Your task to perform on an android device: open device folders in google photos Image 0: 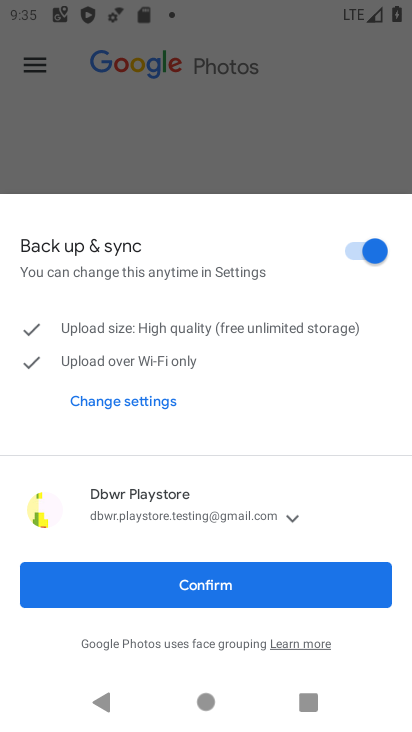
Step 0: click (225, 592)
Your task to perform on an android device: open device folders in google photos Image 1: 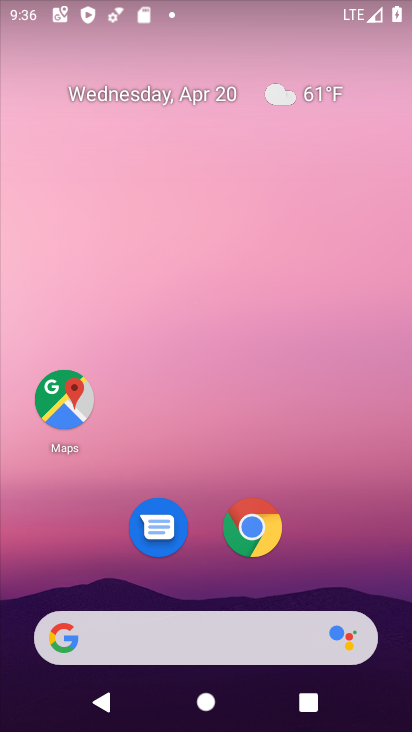
Step 1: drag from (215, 560) to (213, 20)
Your task to perform on an android device: open device folders in google photos Image 2: 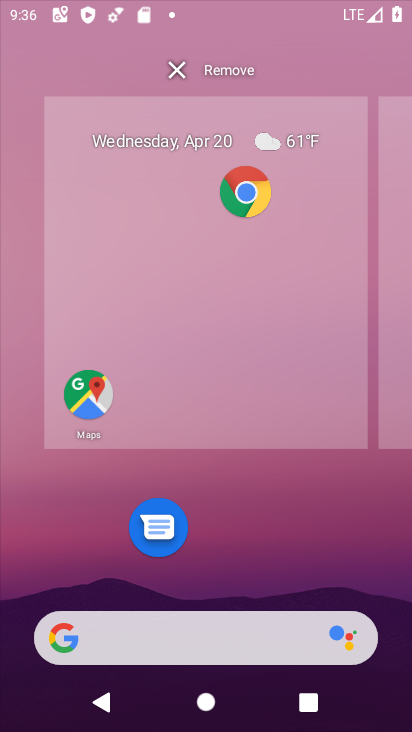
Step 2: click (375, 448)
Your task to perform on an android device: open device folders in google photos Image 3: 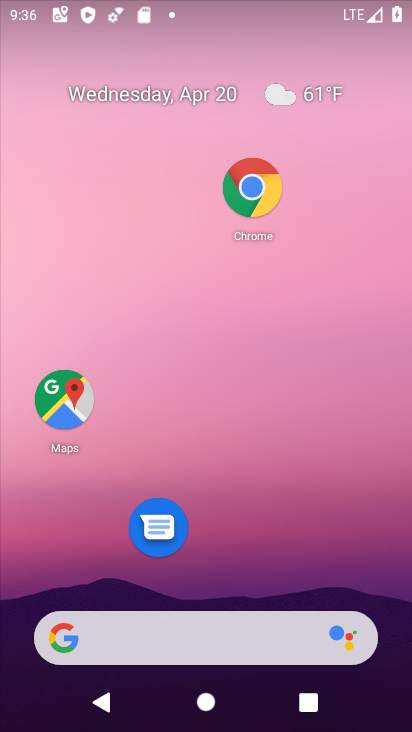
Step 3: drag from (278, 569) to (253, 206)
Your task to perform on an android device: open device folders in google photos Image 4: 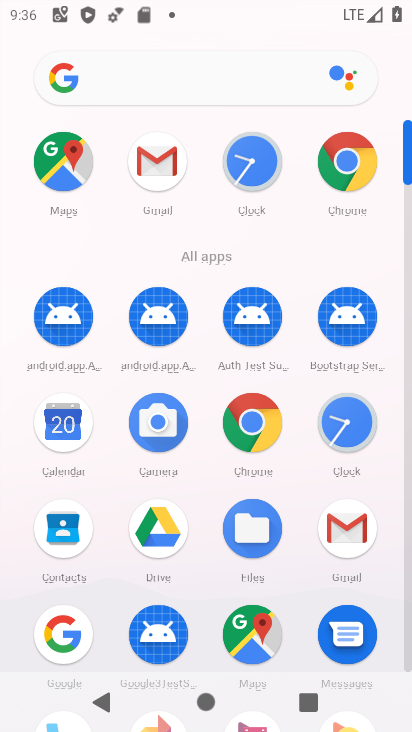
Step 4: drag from (202, 556) to (181, 191)
Your task to perform on an android device: open device folders in google photos Image 5: 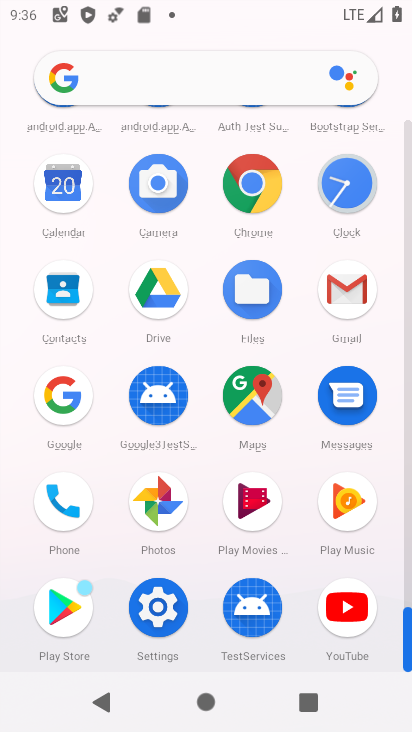
Step 5: click (159, 505)
Your task to perform on an android device: open device folders in google photos Image 6: 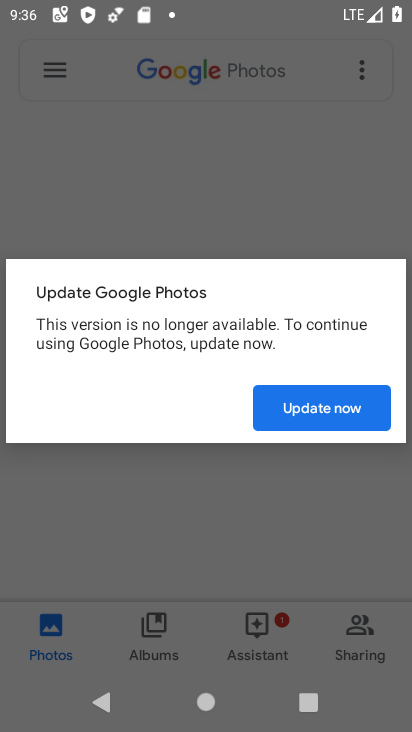
Step 6: click (299, 405)
Your task to perform on an android device: open device folders in google photos Image 7: 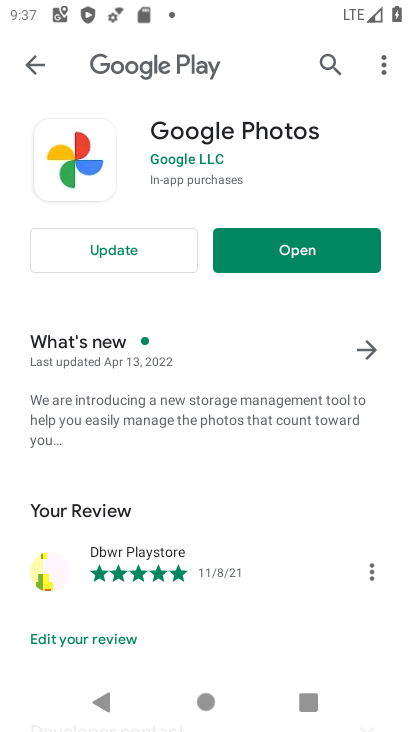
Step 7: click (290, 241)
Your task to perform on an android device: open device folders in google photos Image 8: 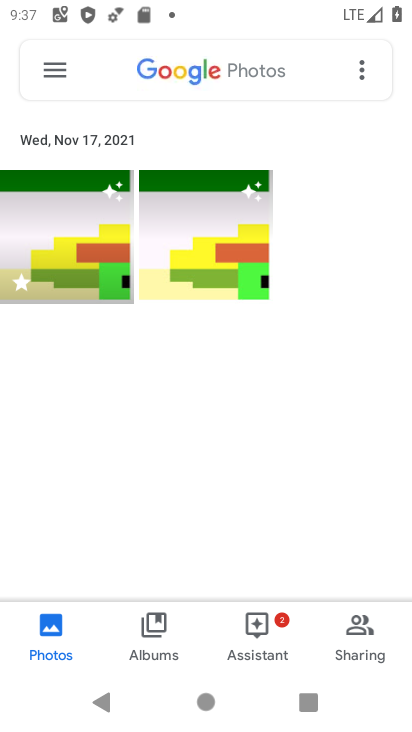
Step 8: click (57, 68)
Your task to perform on an android device: open device folders in google photos Image 9: 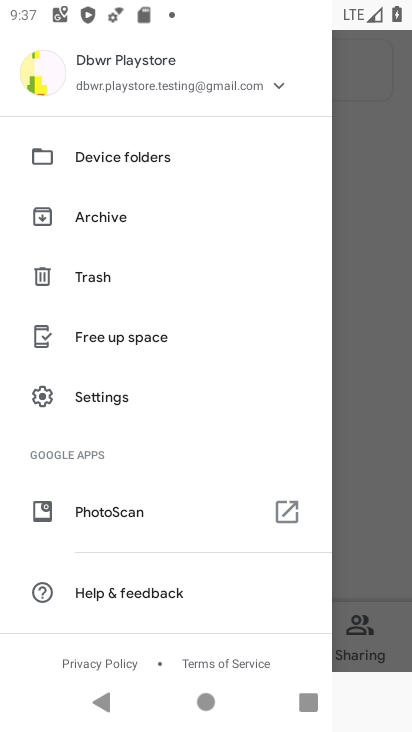
Step 9: click (110, 159)
Your task to perform on an android device: open device folders in google photos Image 10: 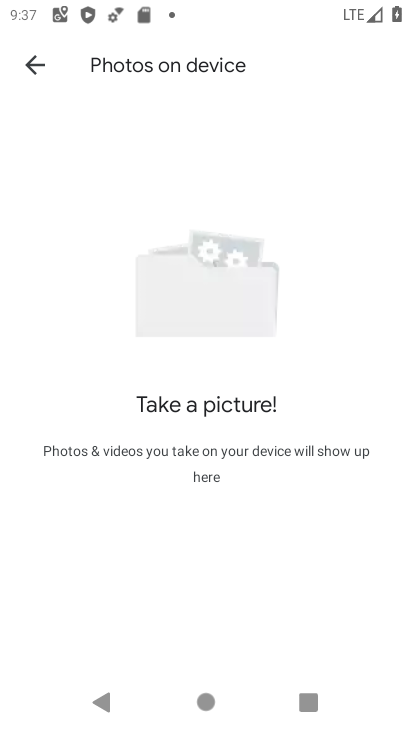
Step 10: task complete